Your task to perform on an android device: open a bookmark in the chrome app Image 0: 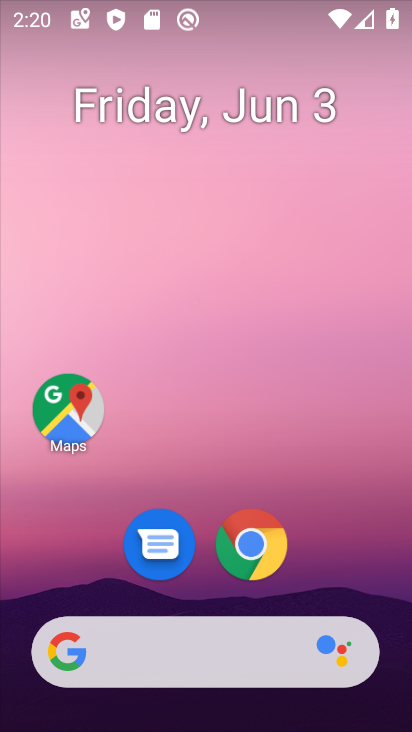
Step 0: drag from (373, 535) to (342, 227)
Your task to perform on an android device: open a bookmark in the chrome app Image 1: 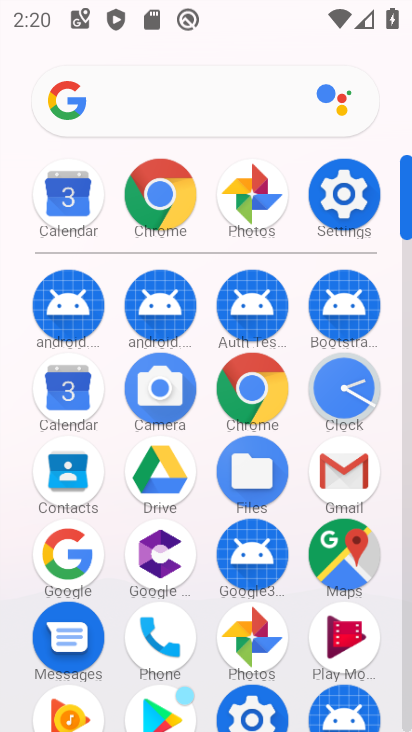
Step 1: click (238, 395)
Your task to perform on an android device: open a bookmark in the chrome app Image 2: 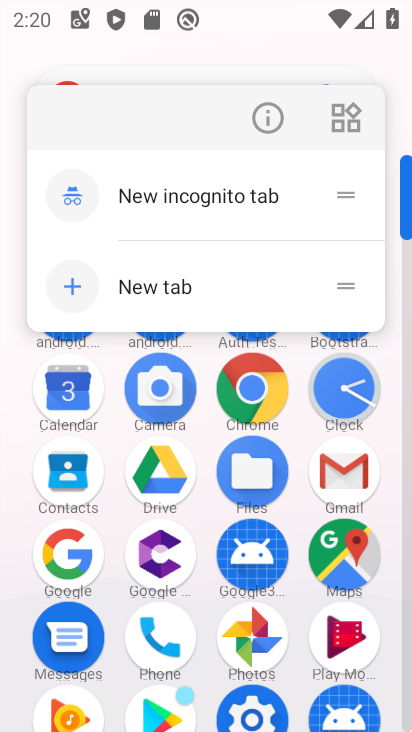
Step 2: click (239, 403)
Your task to perform on an android device: open a bookmark in the chrome app Image 3: 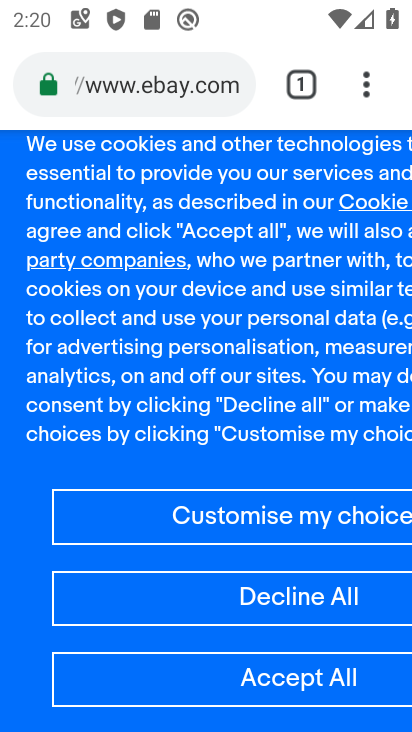
Step 3: task complete